Your task to perform on an android device: Open settings on Google Maps Image 0: 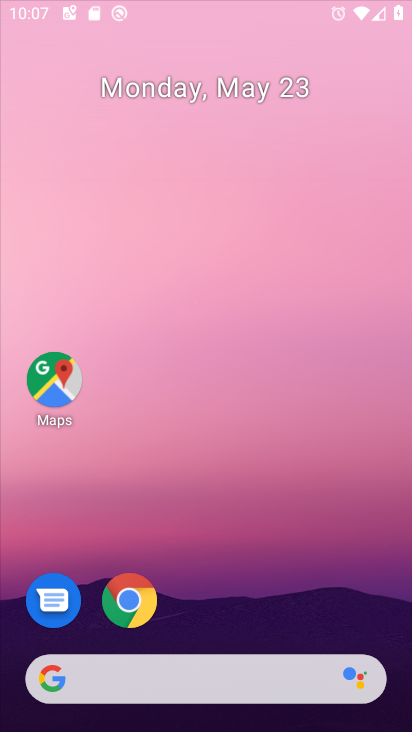
Step 0: click (132, 598)
Your task to perform on an android device: Open settings on Google Maps Image 1: 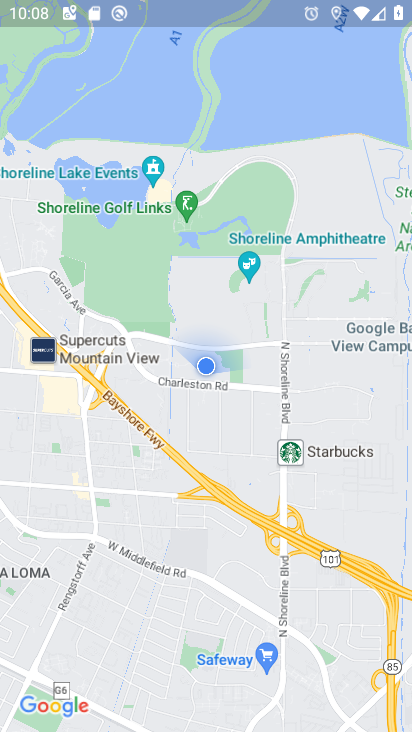
Step 1: click (181, 70)
Your task to perform on an android device: Open settings on Google Maps Image 2: 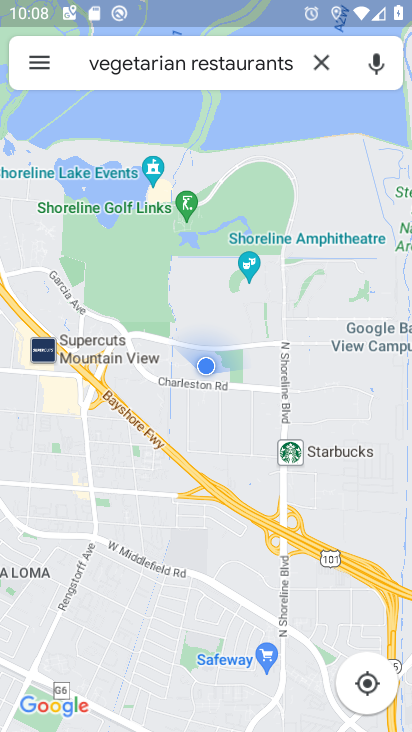
Step 2: click (28, 66)
Your task to perform on an android device: Open settings on Google Maps Image 3: 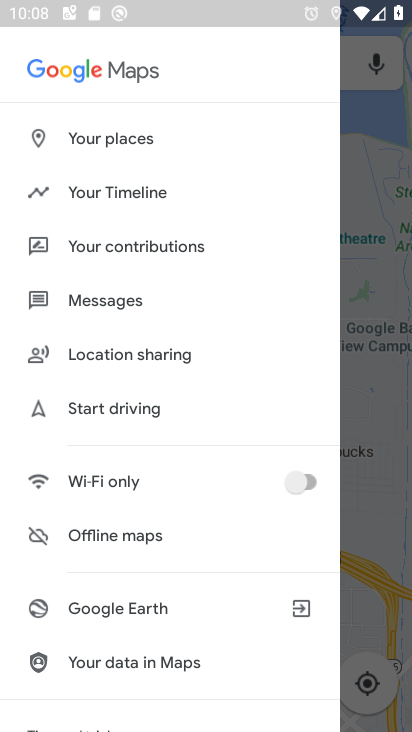
Step 3: drag from (120, 661) to (122, 266)
Your task to perform on an android device: Open settings on Google Maps Image 4: 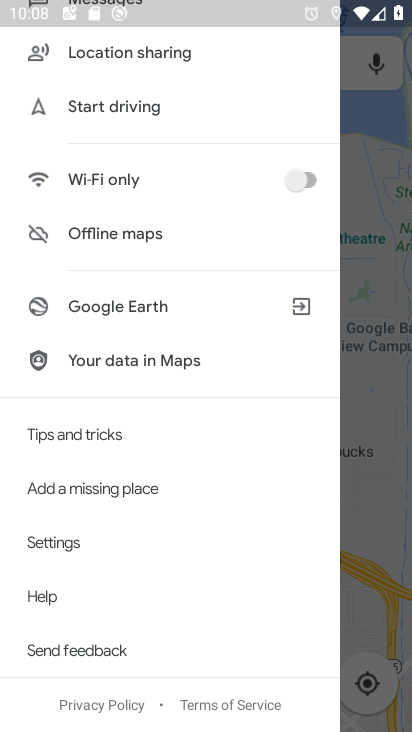
Step 4: click (56, 538)
Your task to perform on an android device: Open settings on Google Maps Image 5: 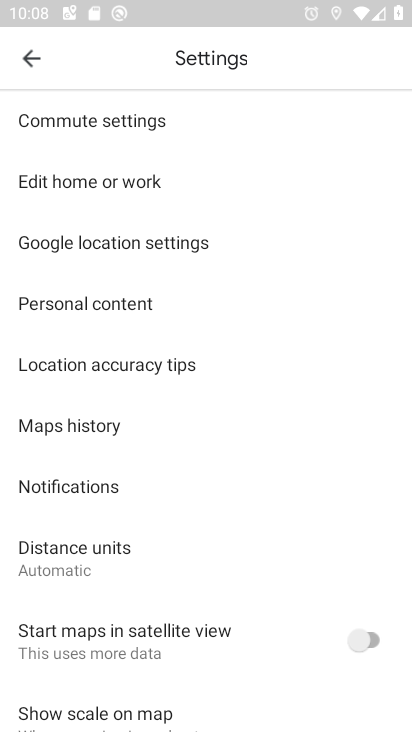
Step 5: task complete